Your task to perform on an android device: check data usage Image 0: 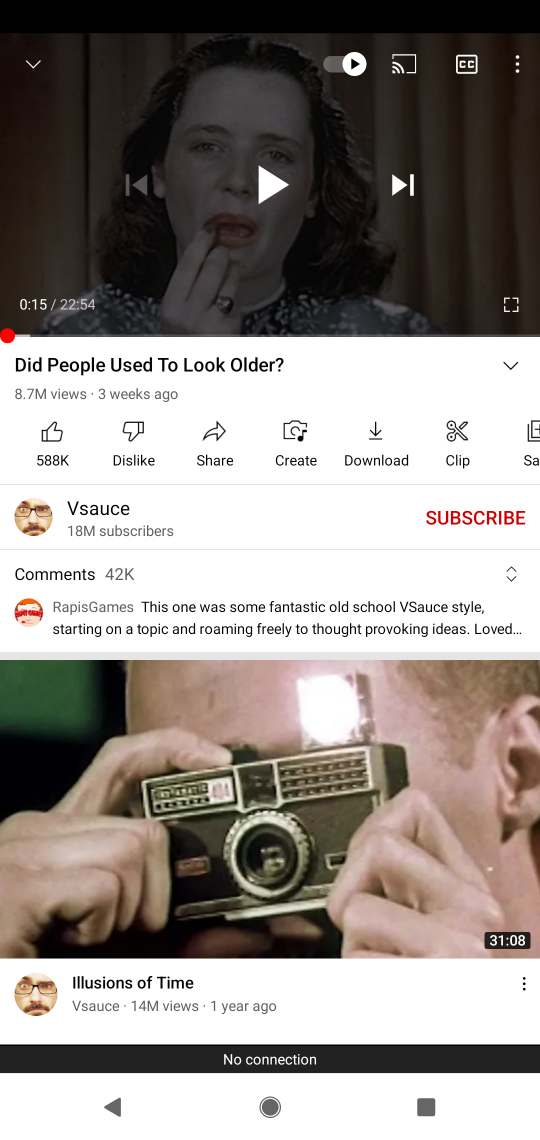
Step 0: press home button
Your task to perform on an android device: check data usage Image 1: 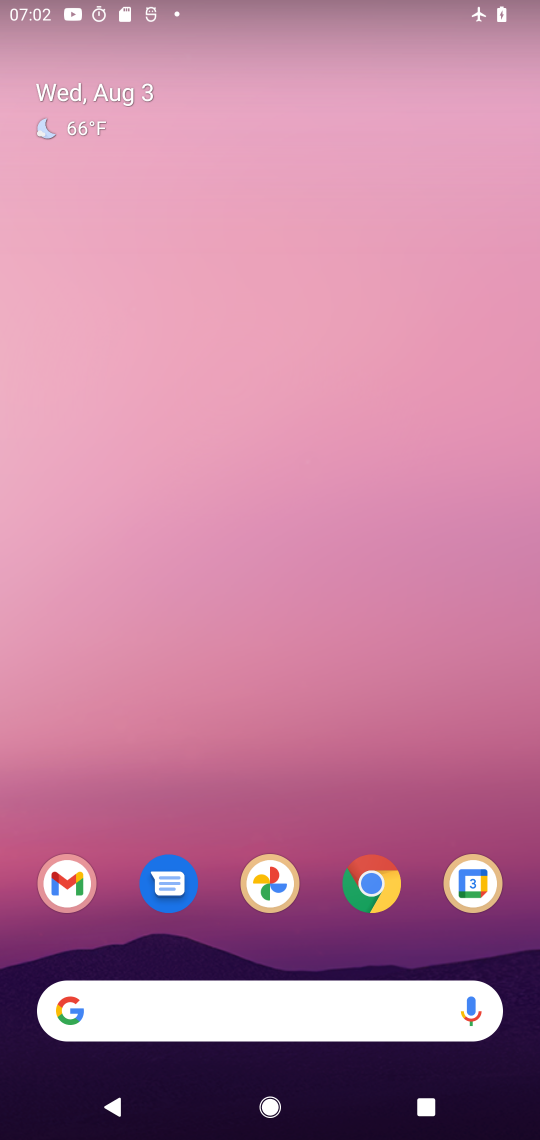
Step 1: drag from (280, 988) to (179, 199)
Your task to perform on an android device: check data usage Image 2: 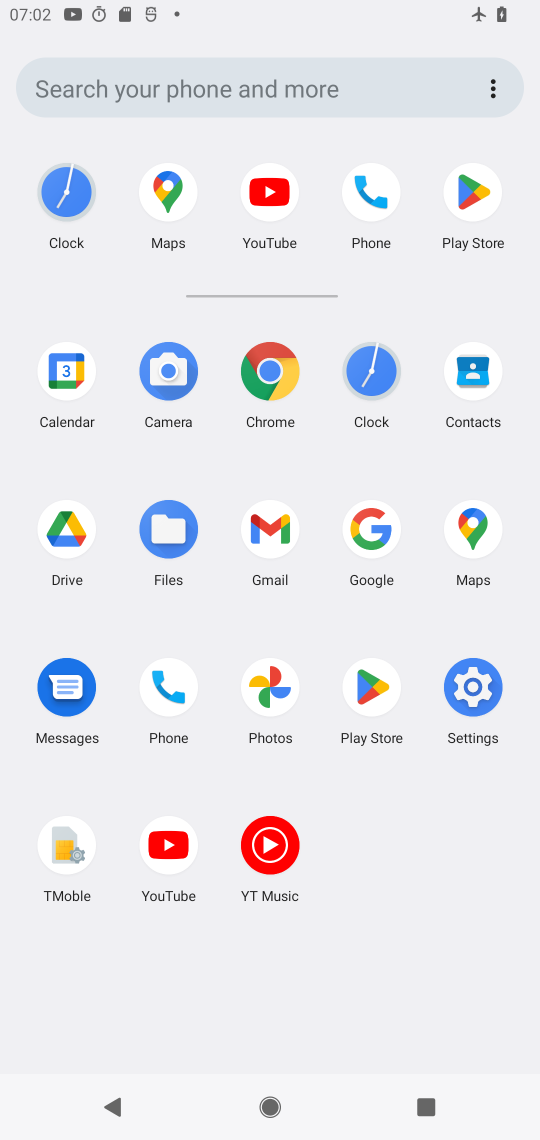
Step 2: click (479, 686)
Your task to perform on an android device: check data usage Image 3: 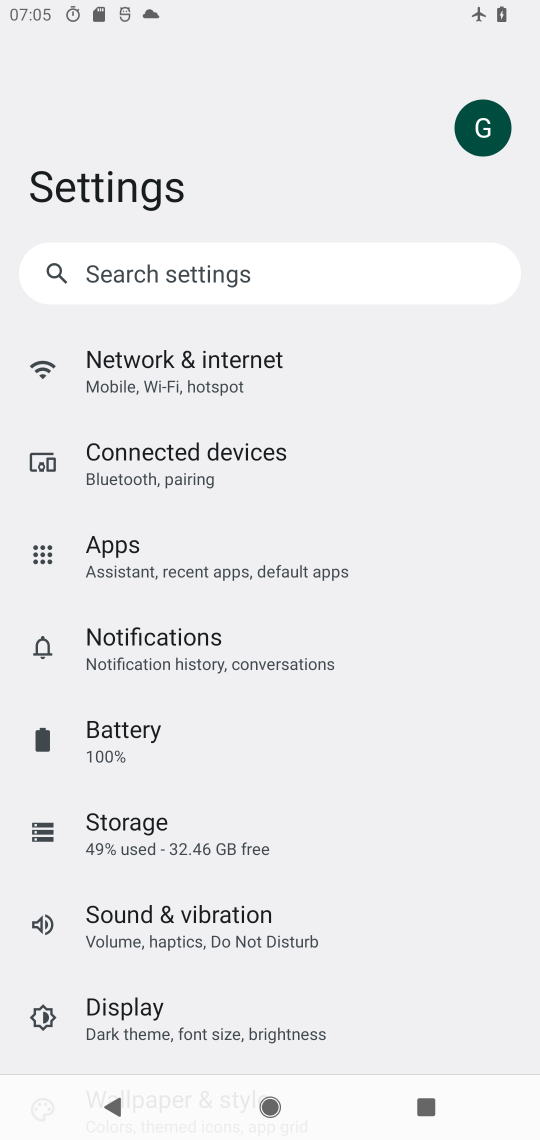
Step 3: click (179, 369)
Your task to perform on an android device: check data usage Image 4: 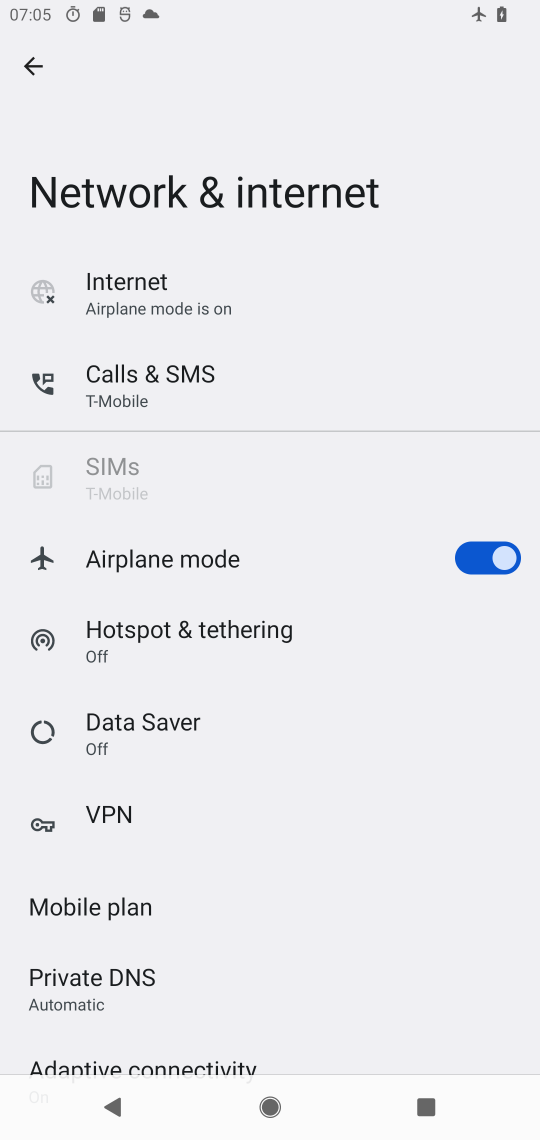
Step 4: click (109, 304)
Your task to perform on an android device: check data usage Image 5: 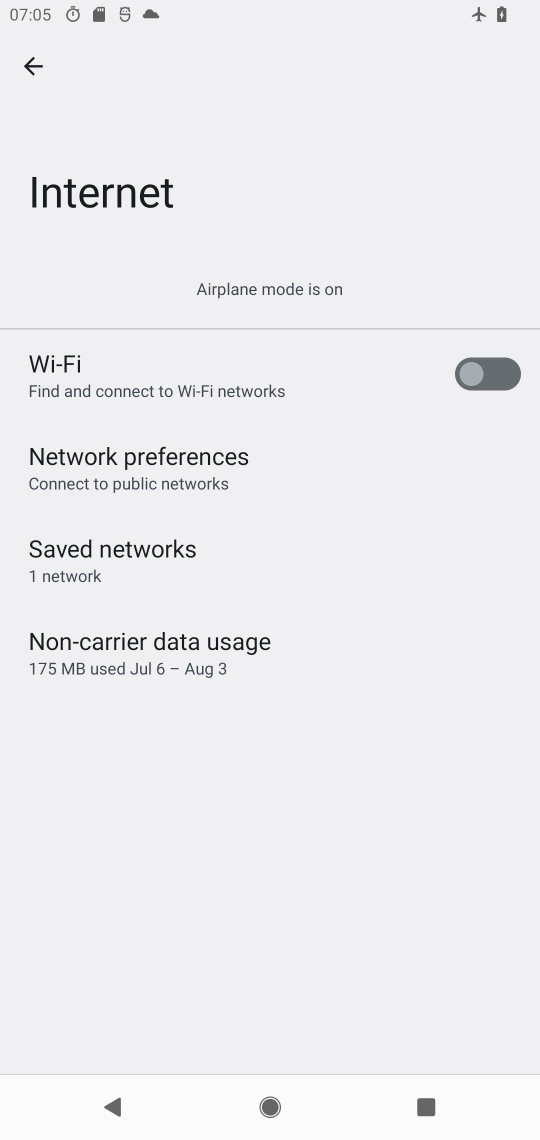
Step 5: click (132, 649)
Your task to perform on an android device: check data usage Image 6: 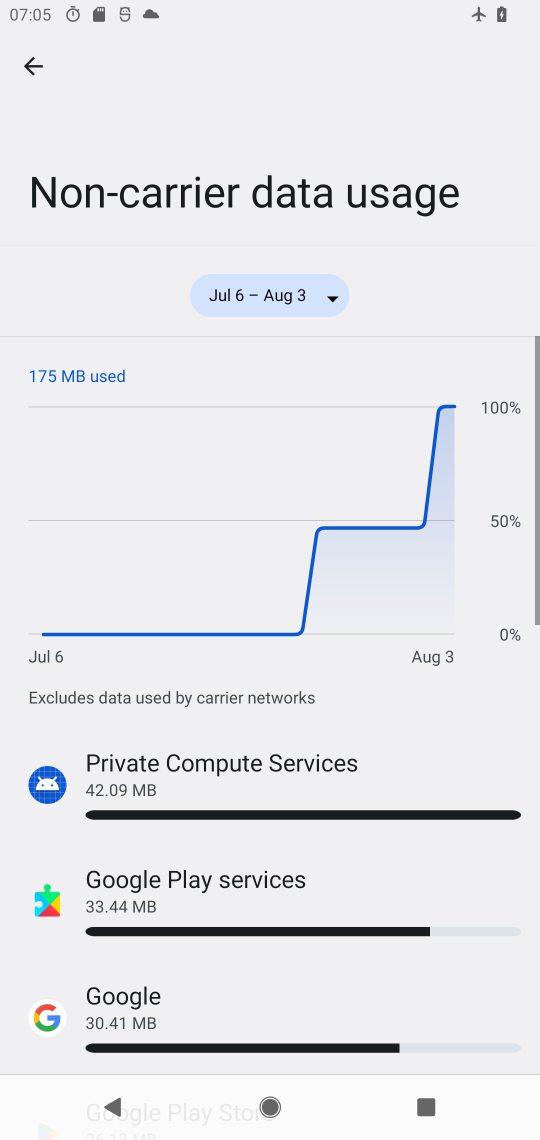
Step 6: task complete